Your task to perform on an android device: turn pop-ups on in chrome Image 0: 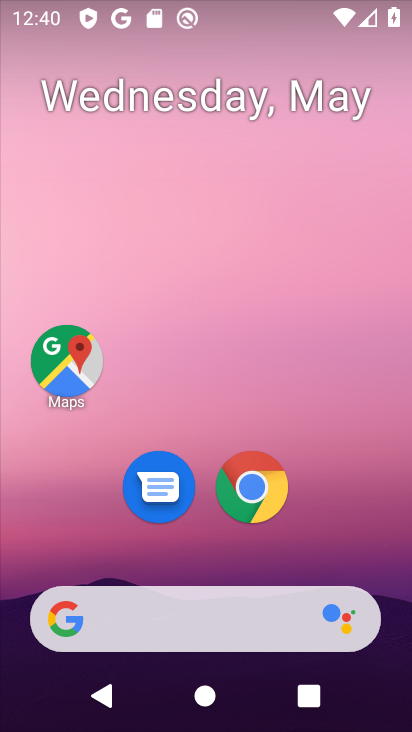
Step 0: click (245, 491)
Your task to perform on an android device: turn pop-ups on in chrome Image 1: 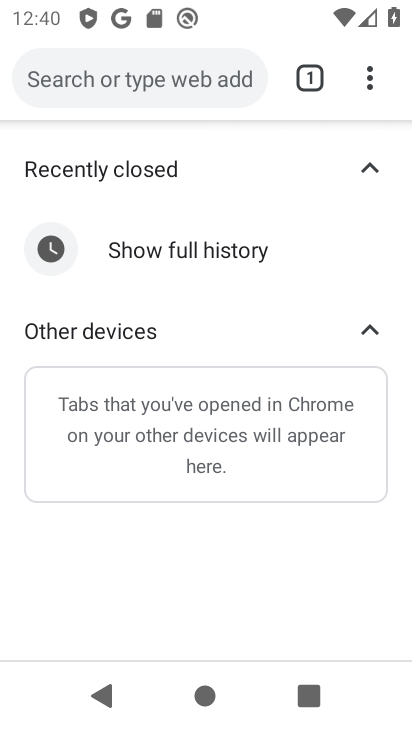
Step 1: click (370, 84)
Your task to perform on an android device: turn pop-ups on in chrome Image 2: 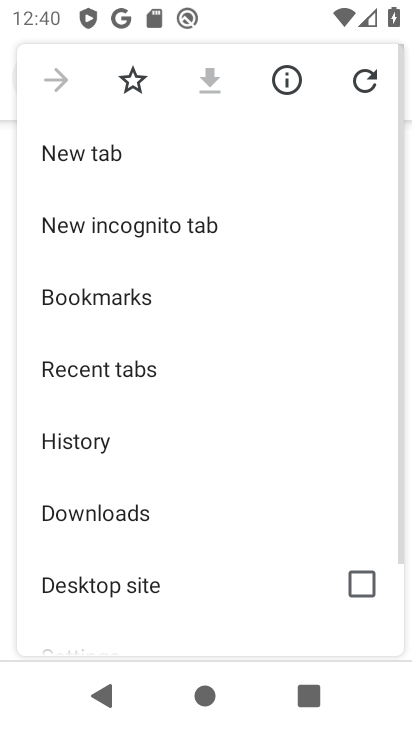
Step 2: drag from (105, 572) to (166, 328)
Your task to perform on an android device: turn pop-ups on in chrome Image 3: 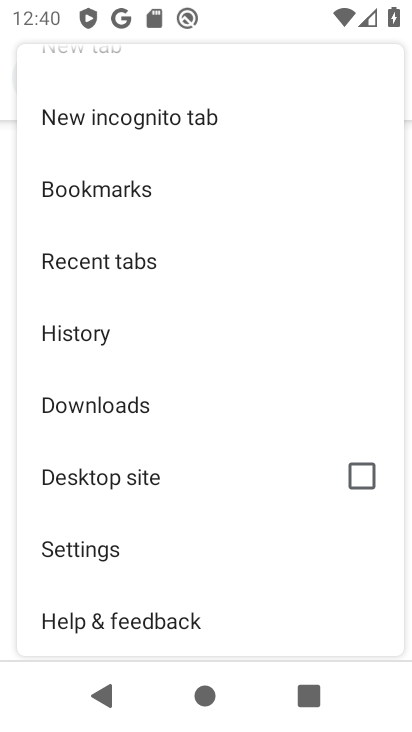
Step 3: click (84, 556)
Your task to perform on an android device: turn pop-ups on in chrome Image 4: 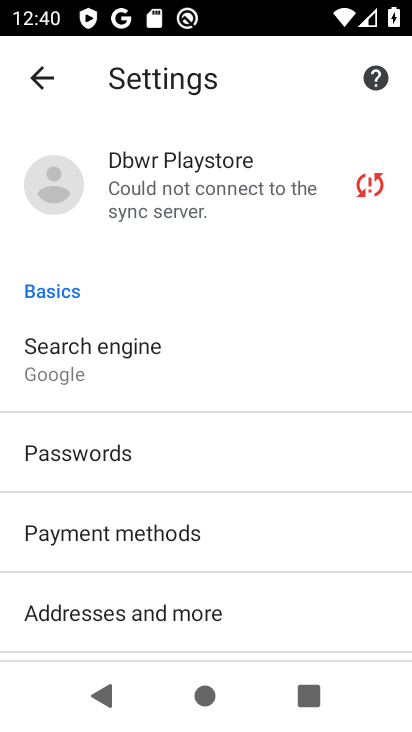
Step 4: drag from (152, 578) to (198, 265)
Your task to perform on an android device: turn pop-ups on in chrome Image 5: 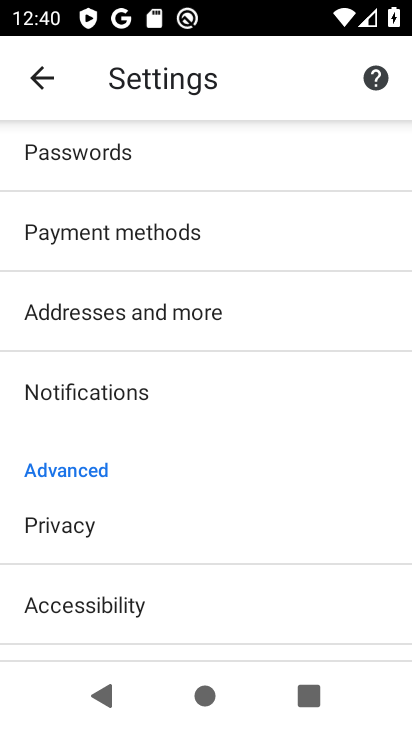
Step 5: drag from (157, 560) to (214, 186)
Your task to perform on an android device: turn pop-ups on in chrome Image 6: 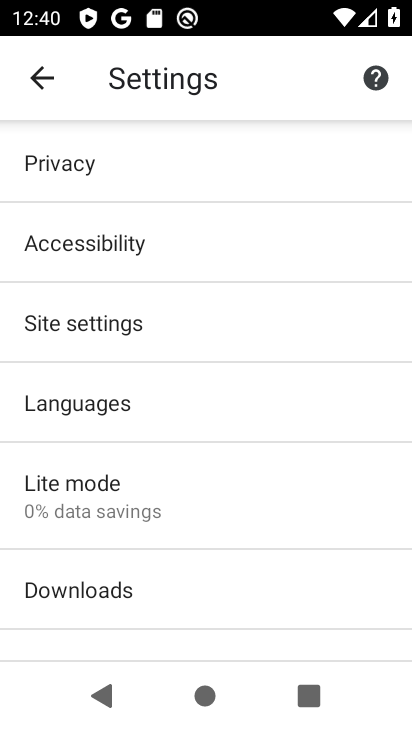
Step 6: click (124, 332)
Your task to perform on an android device: turn pop-ups on in chrome Image 7: 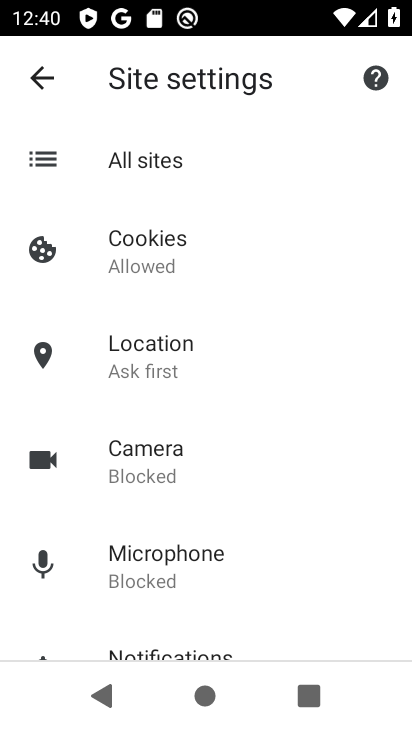
Step 7: drag from (182, 591) to (240, 360)
Your task to perform on an android device: turn pop-ups on in chrome Image 8: 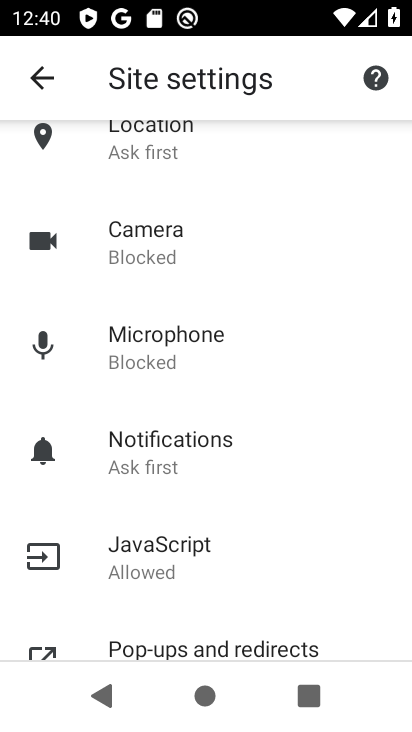
Step 8: drag from (167, 595) to (227, 303)
Your task to perform on an android device: turn pop-ups on in chrome Image 9: 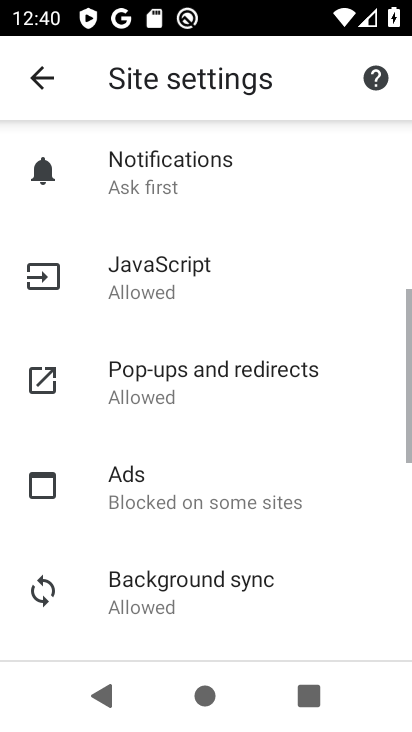
Step 9: click (205, 409)
Your task to perform on an android device: turn pop-ups on in chrome Image 10: 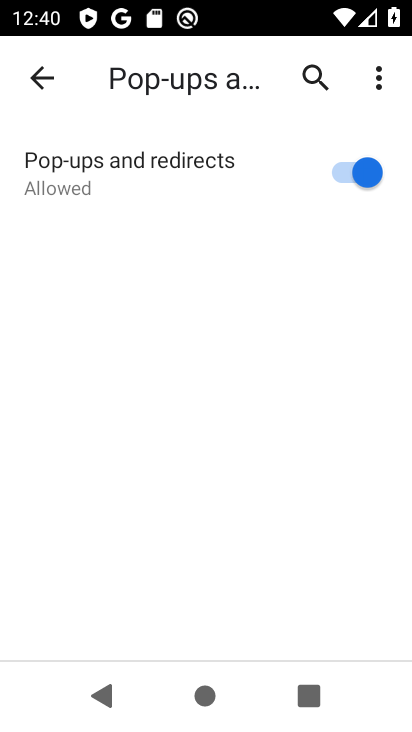
Step 10: task complete